Your task to perform on an android device: Open calendar and show me the first week of next month Image 0: 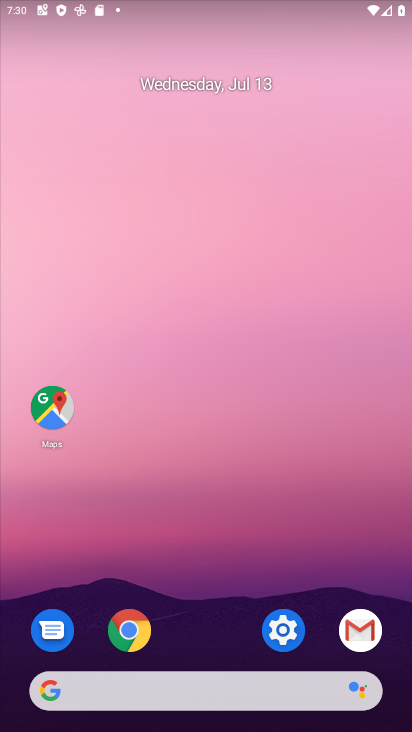
Step 0: press home button
Your task to perform on an android device: Open calendar and show me the first week of next month Image 1: 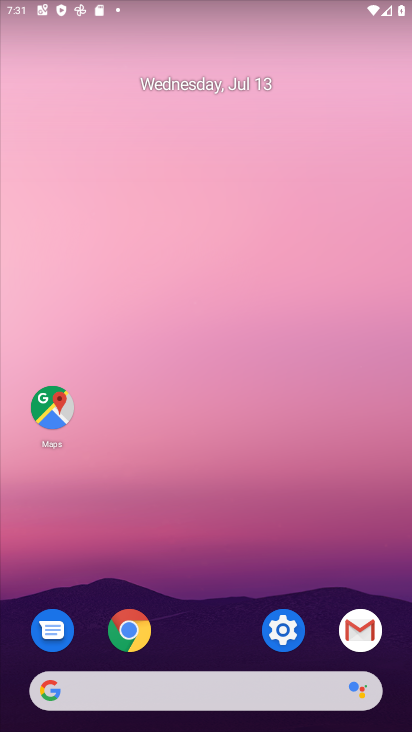
Step 1: drag from (195, 524) to (197, 273)
Your task to perform on an android device: Open calendar and show me the first week of next month Image 2: 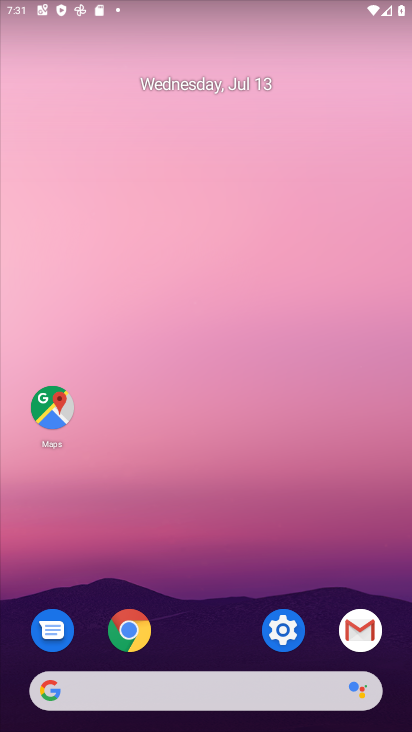
Step 2: drag from (214, 695) to (165, 215)
Your task to perform on an android device: Open calendar and show me the first week of next month Image 3: 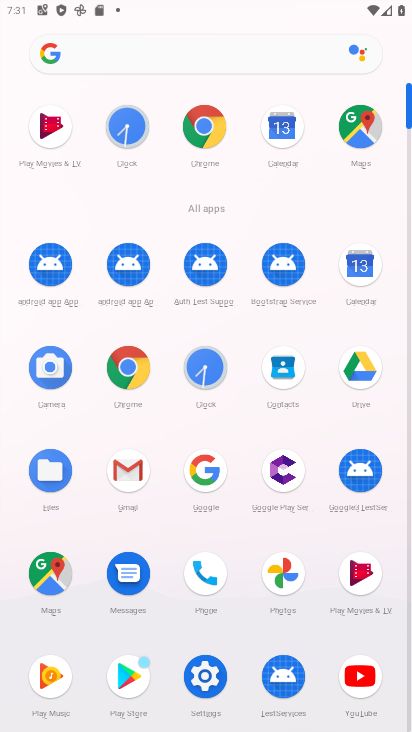
Step 3: click (359, 291)
Your task to perform on an android device: Open calendar and show me the first week of next month Image 4: 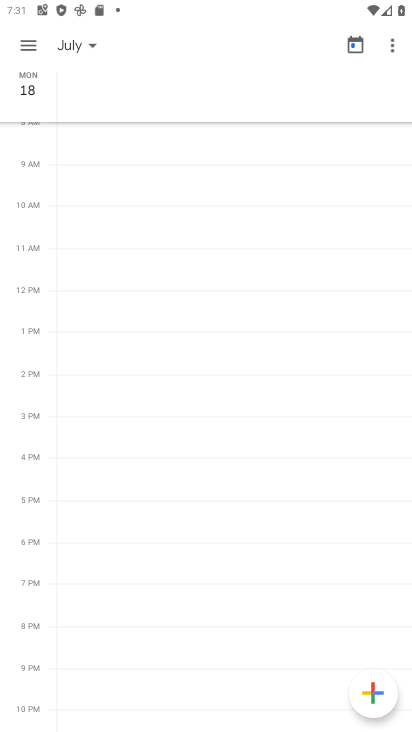
Step 4: click (24, 44)
Your task to perform on an android device: Open calendar and show me the first week of next month Image 5: 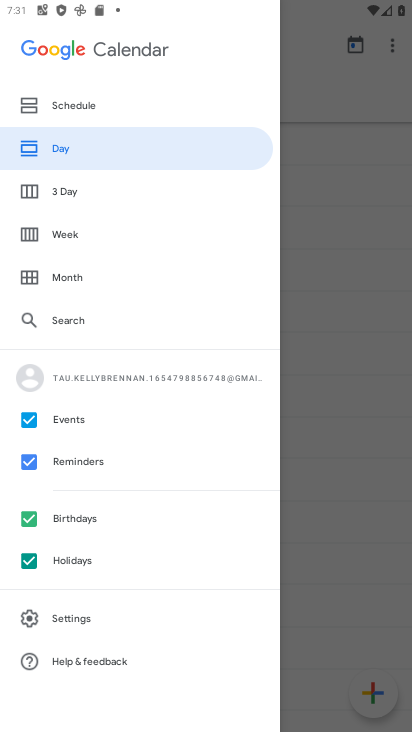
Step 5: click (73, 282)
Your task to perform on an android device: Open calendar and show me the first week of next month Image 6: 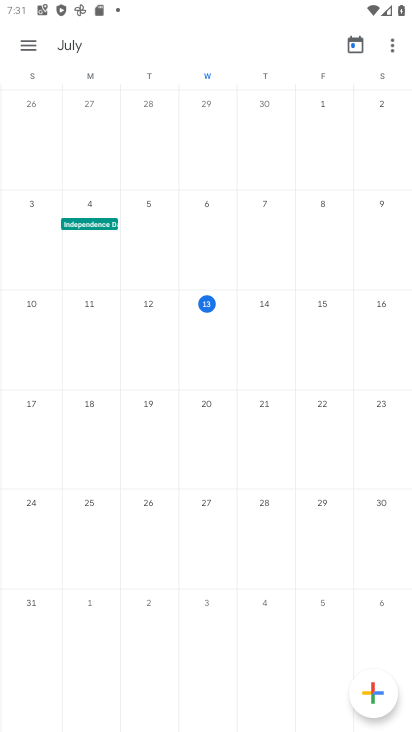
Step 6: drag from (351, 267) to (0, 354)
Your task to perform on an android device: Open calendar and show me the first week of next month Image 7: 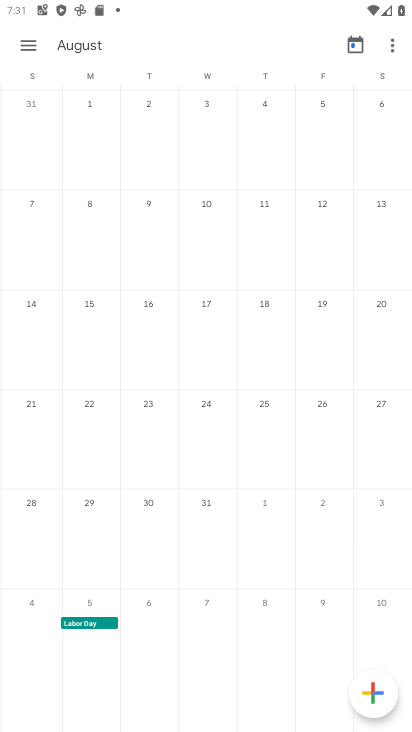
Step 7: click (87, 122)
Your task to perform on an android device: Open calendar and show me the first week of next month Image 8: 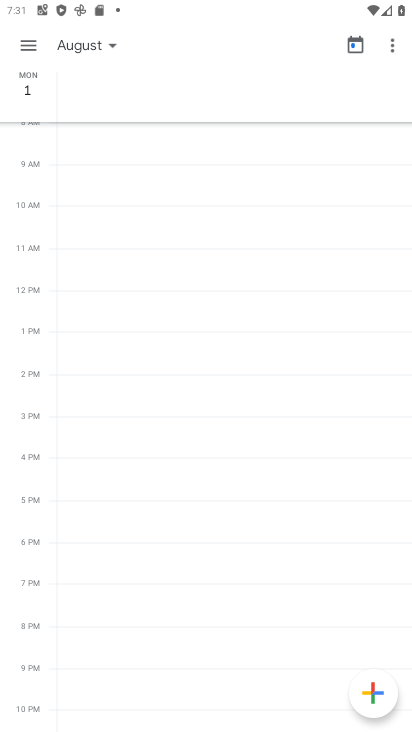
Step 8: task complete